Your task to perform on an android device: Open Google Maps Image 0: 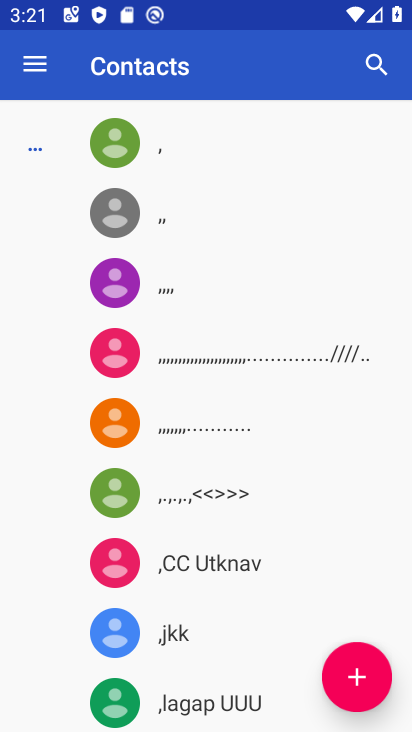
Step 0: press home button
Your task to perform on an android device: Open Google Maps Image 1: 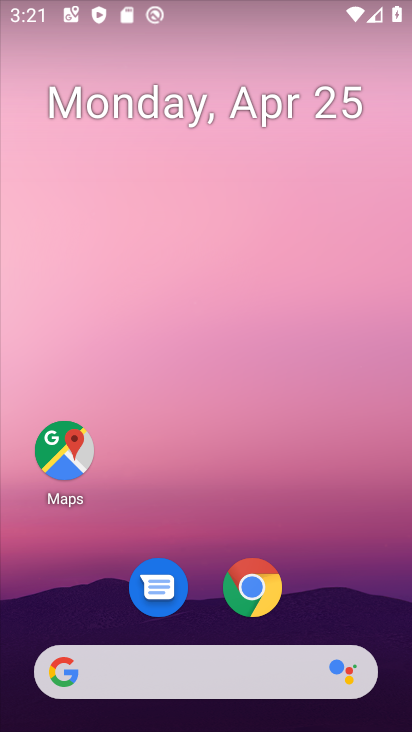
Step 1: click (65, 471)
Your task to perform on an android device: Open Google Maps Image 2: 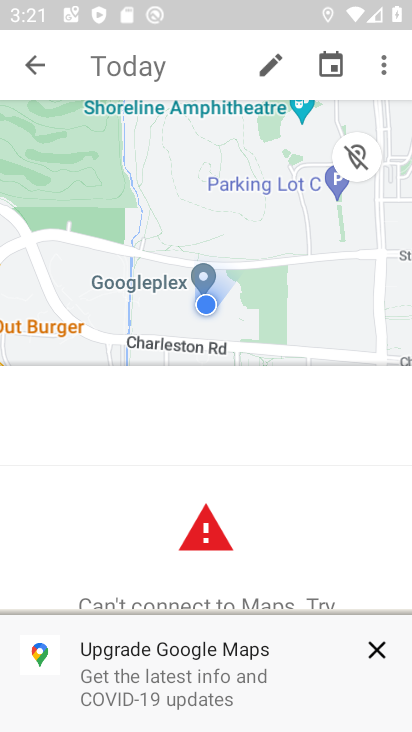
Step 2: task complete